Your task to perform on an android device: turn on sleep mode Image 0: 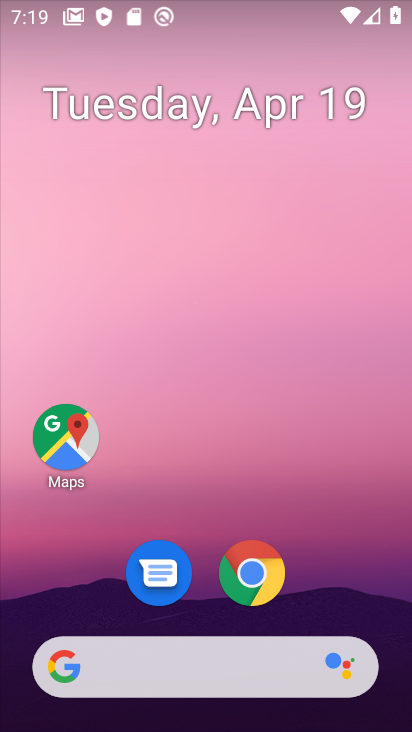
Step 0: drag from (382, 602) to (395, 90)
Your task to perform on an android device: turn on sleep mode Image 1: 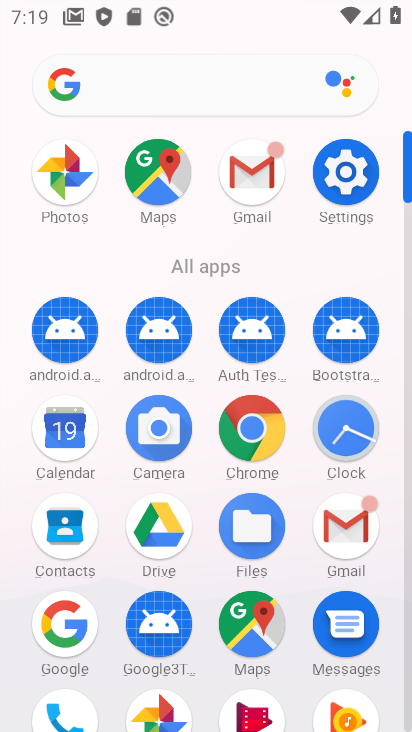
Step 1: click (345, 177)
Your task to perform on an android device: turn on sleep mode Image 2: 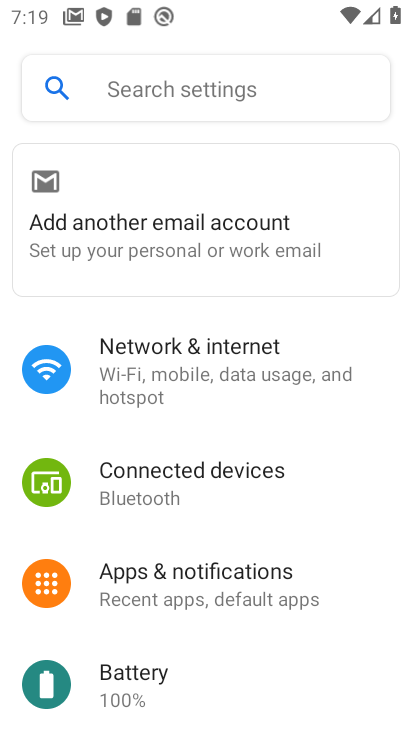
Step 2: drag from (388, 386) to (392, 157)
Your task to perform on an android device: turn on sleep mode Image 3: 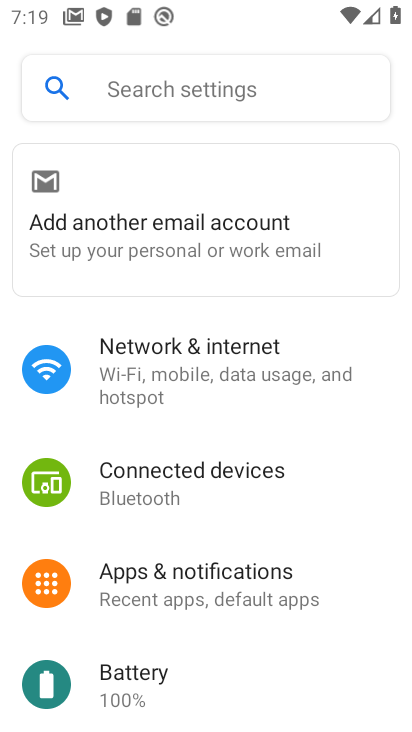
Step 3: drag from (367, 638) to (368, 254)
Your task to perform on an android device: turn on sleep mode Image 4: 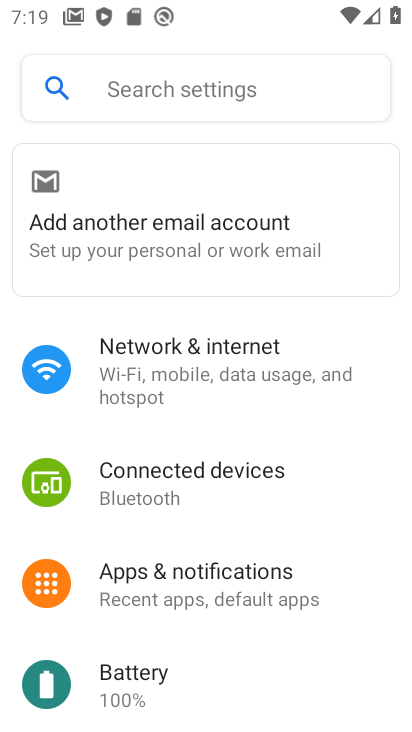
Step 4: drag from (338, 429) to (333, 187)
Your task to perform on an android device: turn on sleep mode Image 5: 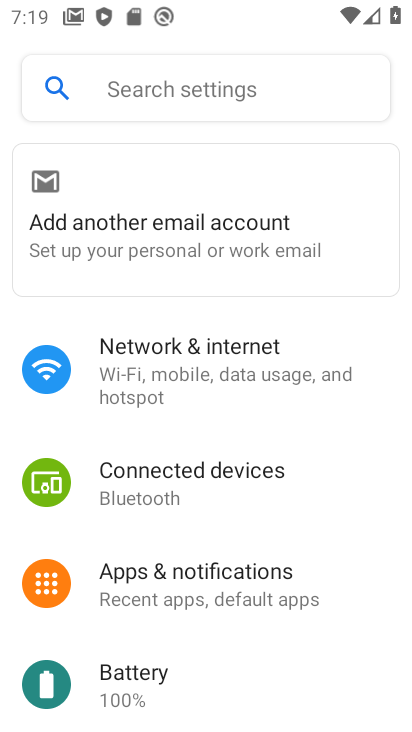
Step 5: drag from (355, 666) to (336, 238)
Your task to perform on an android device: turn on sleep mode Image 6: 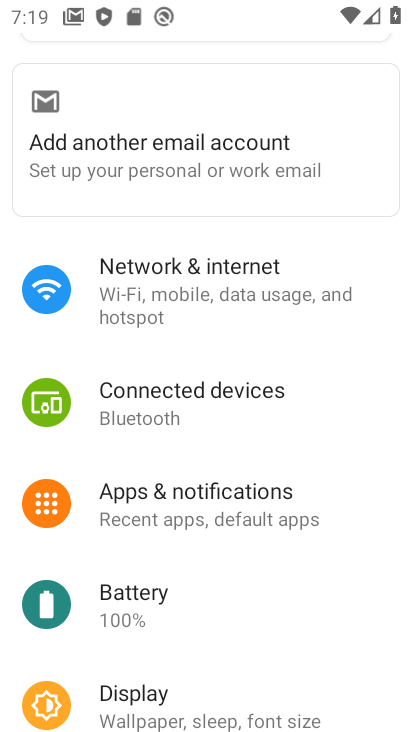
Step 6: drag from (371, 648) to (378, 134)
Your task to perform on an android device: turn on sleep mode Image 7: 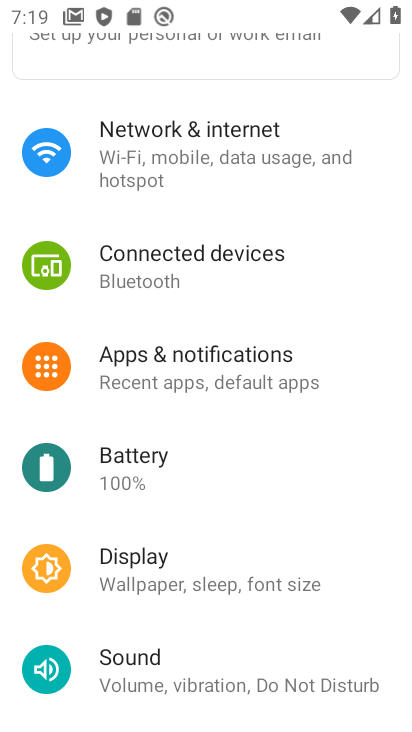
Step 7: click (144, 563)
Your task to perform on an android device: turn on sleep mode Image 8: 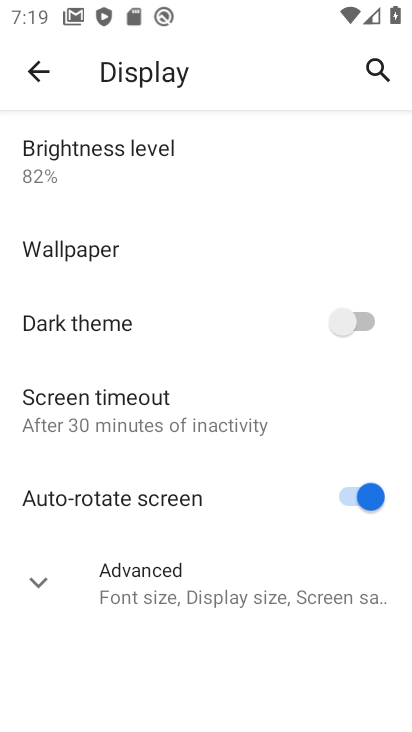
Step 8: click (107, 407)
Your task to perform on an android device: turn on sleep mode Image 9: 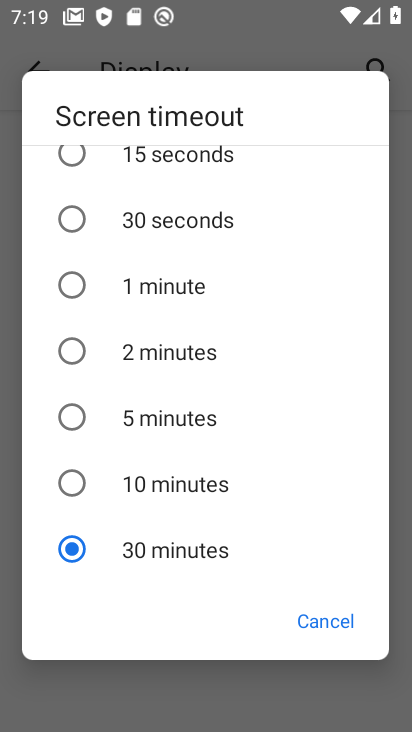
Step 9: task complete